Your task to perform on an android device: Go to ESPN.com Image 0: 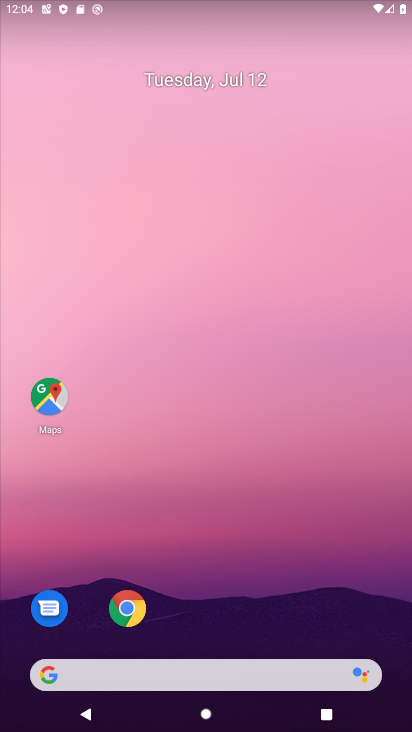
Step 0: click (132, 623)
Your task to perform on an android device: Go to ESPN.com Image 1: 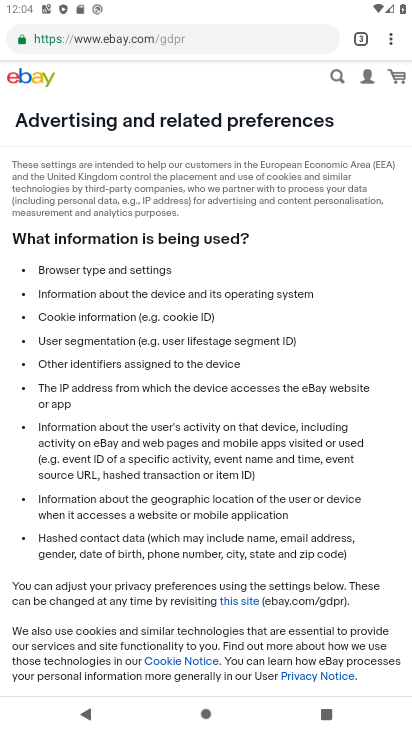
Step 1: click (357, 39)
Your task to perform on an android device: Go to ESPN.com Image 2: 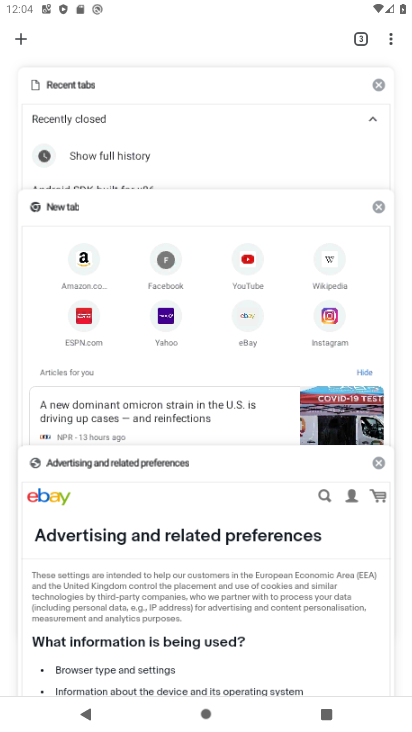
Step 2: click (184, 236)
Your task to perform on an android device: Go to ESPN.com Image 3: 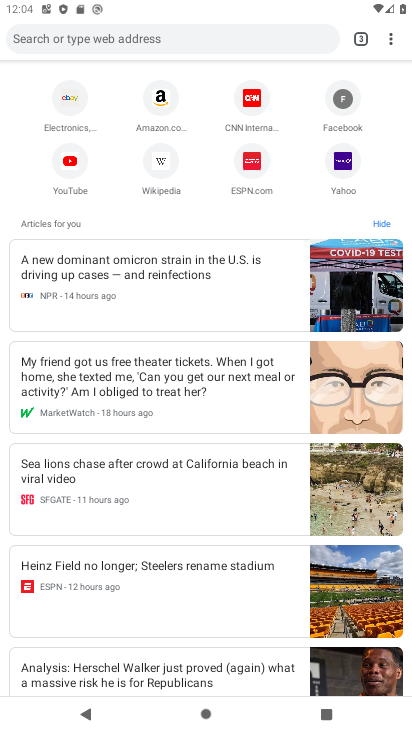
Step 3: click (254, 163)
Your task to perform on an android device: Go to ESPN.com Image 4: 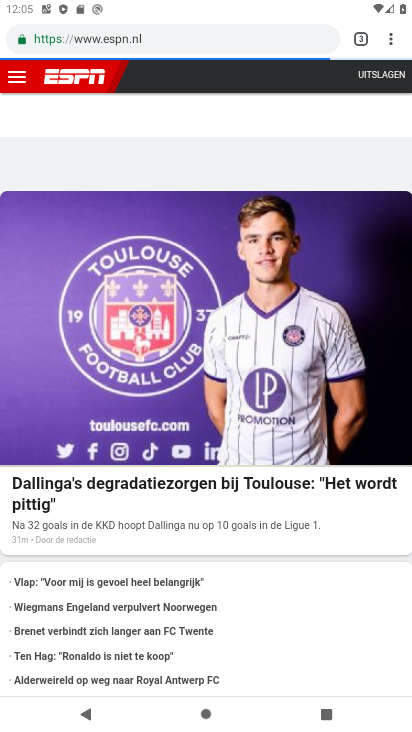
Step 4: task complete